Your task to perform on an android device: Open CNN.com Image 0: 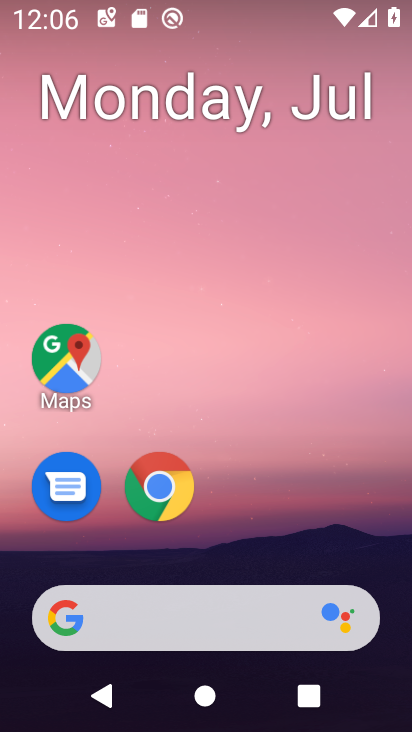
Step 0: press home button
Your task to perform on an android device: Open CNN.com Image 1: 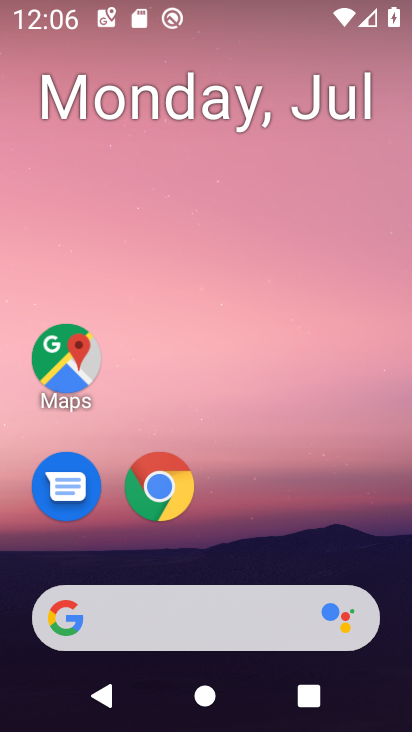
Step 1: drag from (377, 533) to (337, 50)
Your task to perform on an android device: Open CNN.com Image 2: 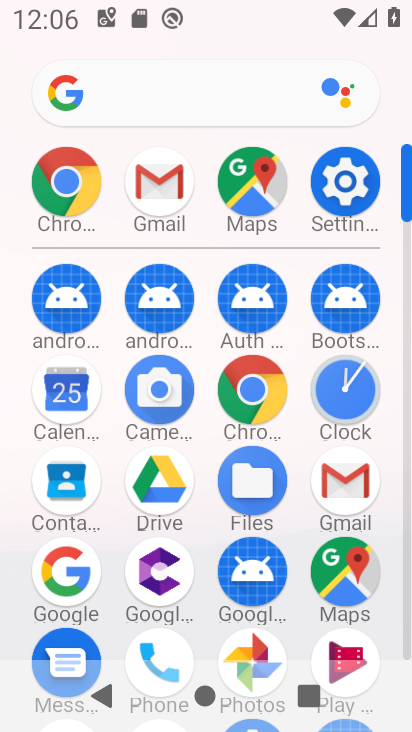
Step 2: click (262, 390)
Your task to perform on an android device: Open CNN.com Image 3: 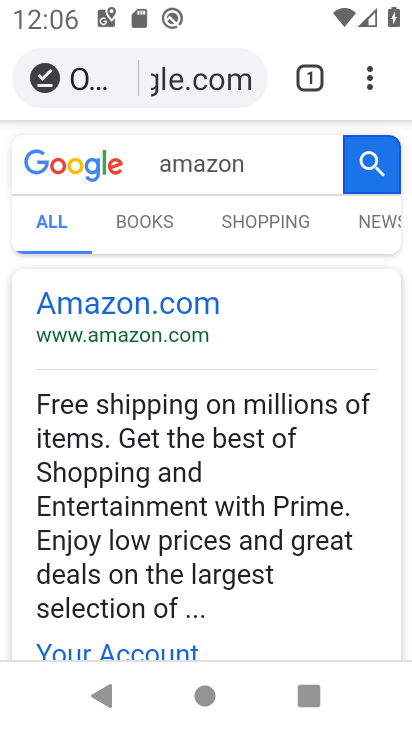
Step 3: click (208, 83)
Your task to perform on an android device: Open CNN.com Image 4: 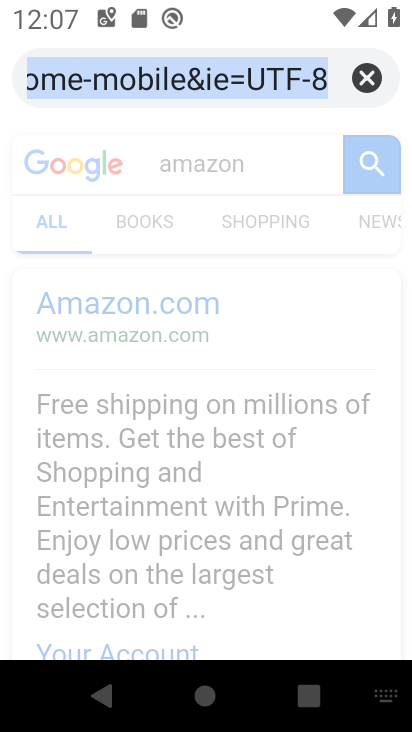
Step 4: type "cnn.com"
Your task to perform on an android device: Open CNN.com Image 5: 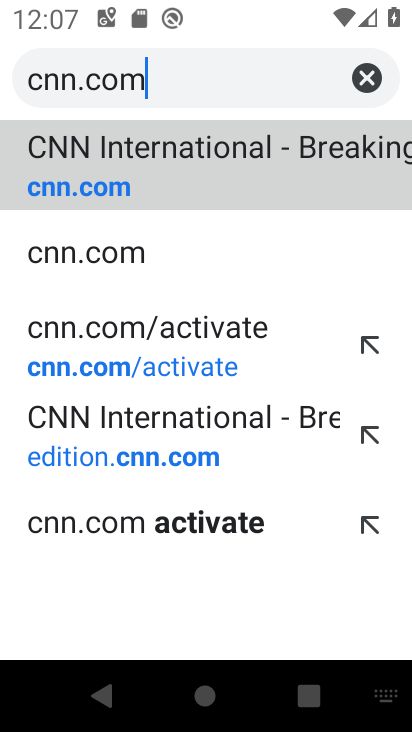
Step 5: click (360, 194)
Your task to perform on an android device: Open CNN.com Image 6: 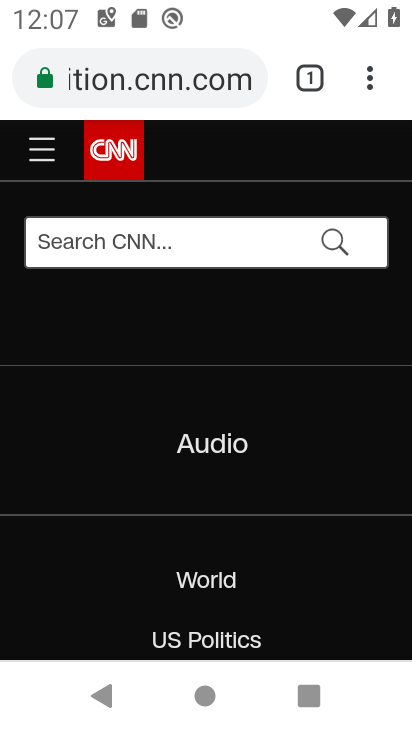
Step 6: task complete